Your task to perform on an android device: find which apps use the phone's location Image 0: 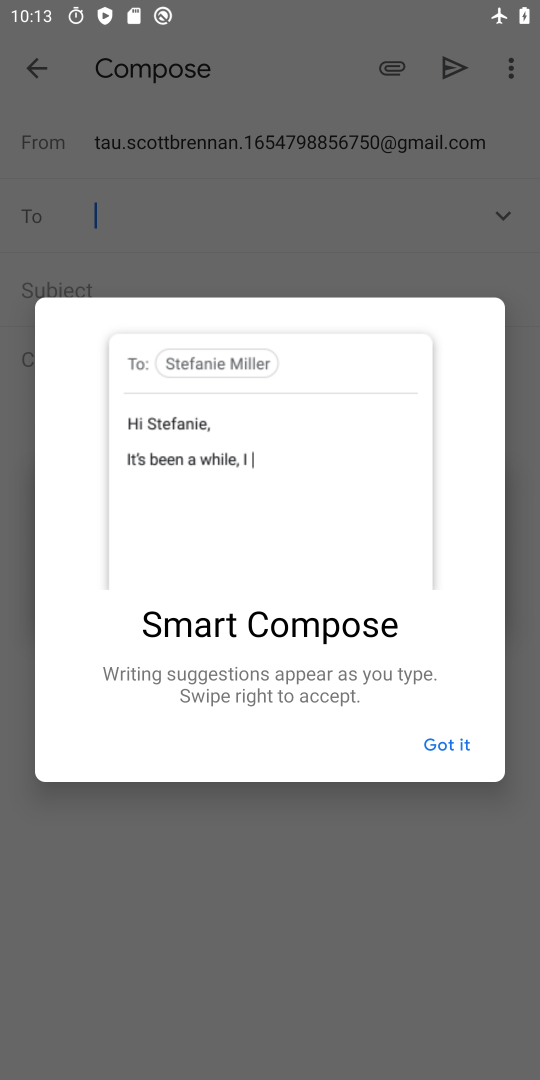
Step 0: press home button
Your task to perform on an android device: find which apps use the phone's location Image 1: 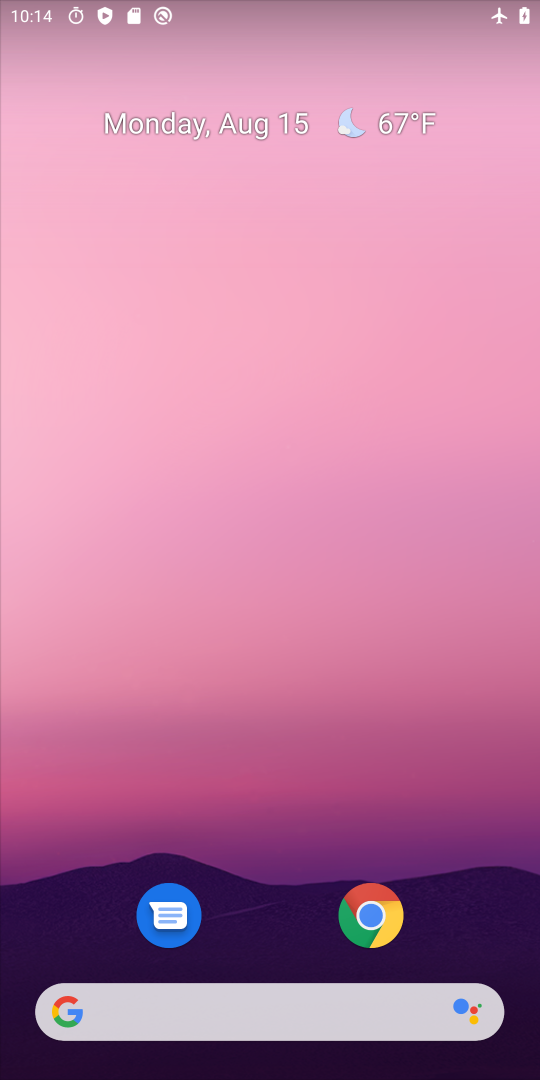
Step 1: drag from (458, 793) to (402, 323)
Your task to perform on an android device: find which apps use the phone's location Image 2: 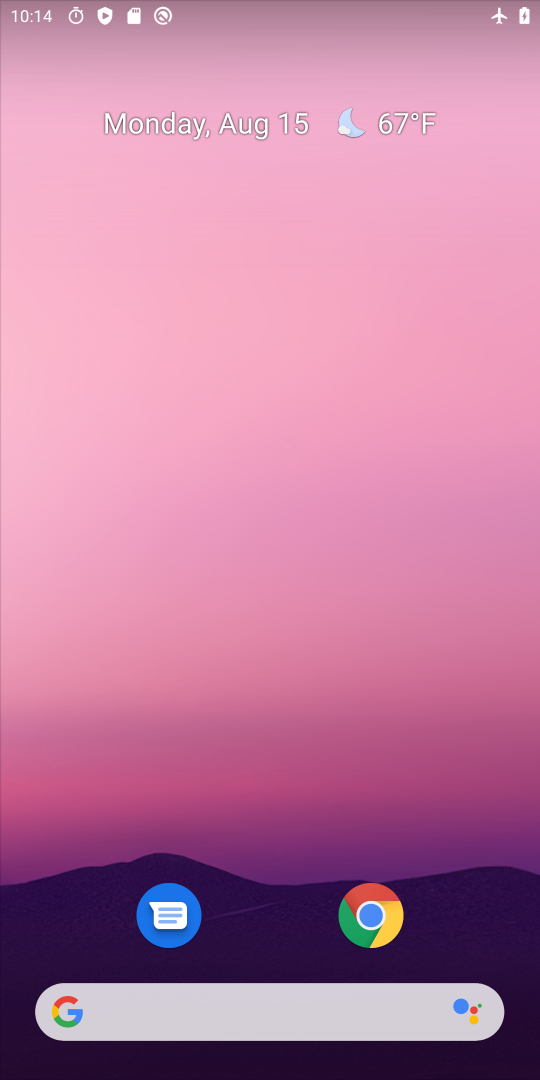
Step 2: drag from (442, 860) to (466, 56)
Your task to perform on an android device: find which apps use the phone's location Image 3: 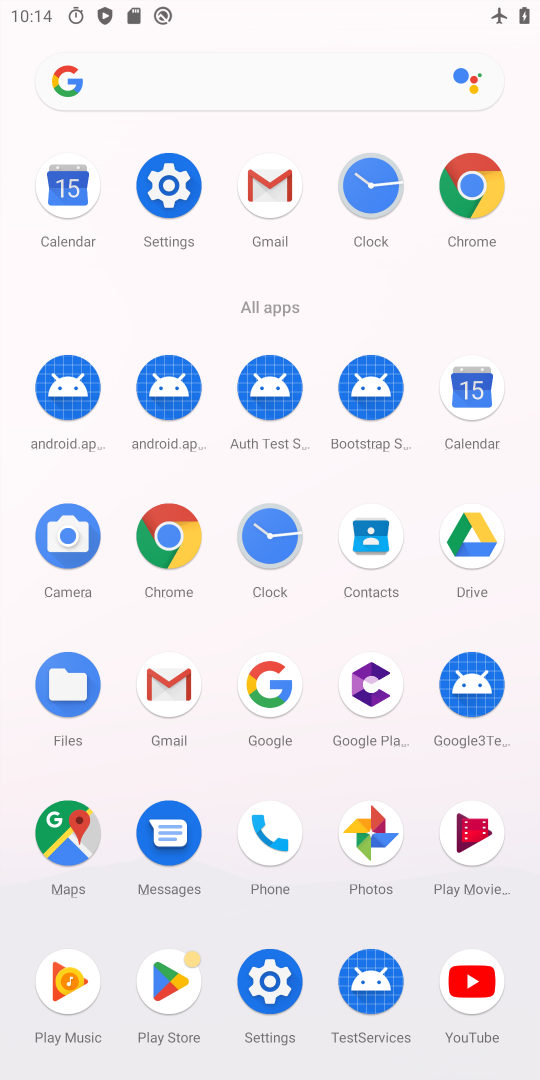
Step 3: click (257, 981)
Your task to perform on an android device: find which apps use the phone's location Image 4: 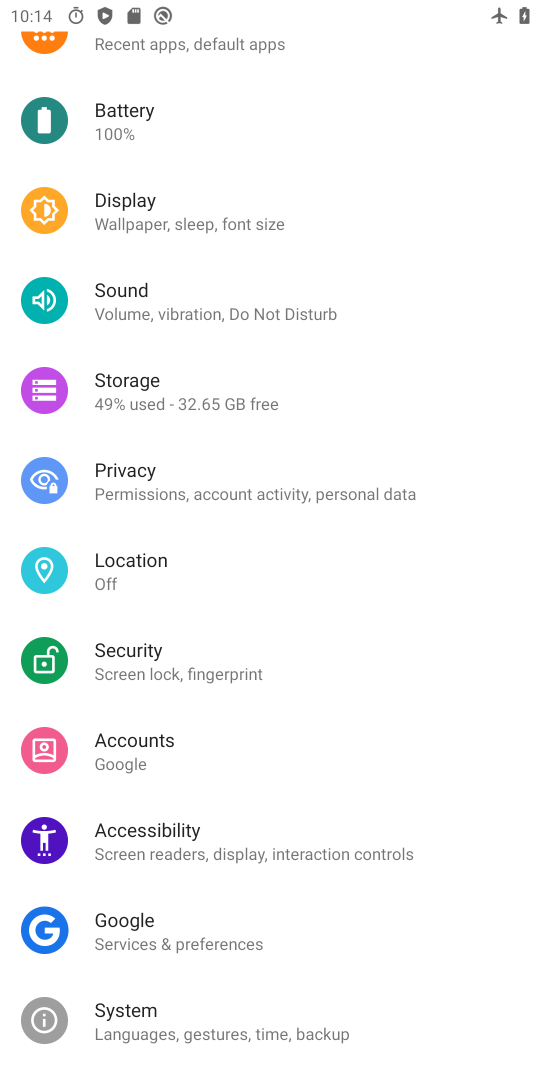
Step 4: click (130, 573)
Your task to perform on an android device: find which apps use the phone's location Image 5: 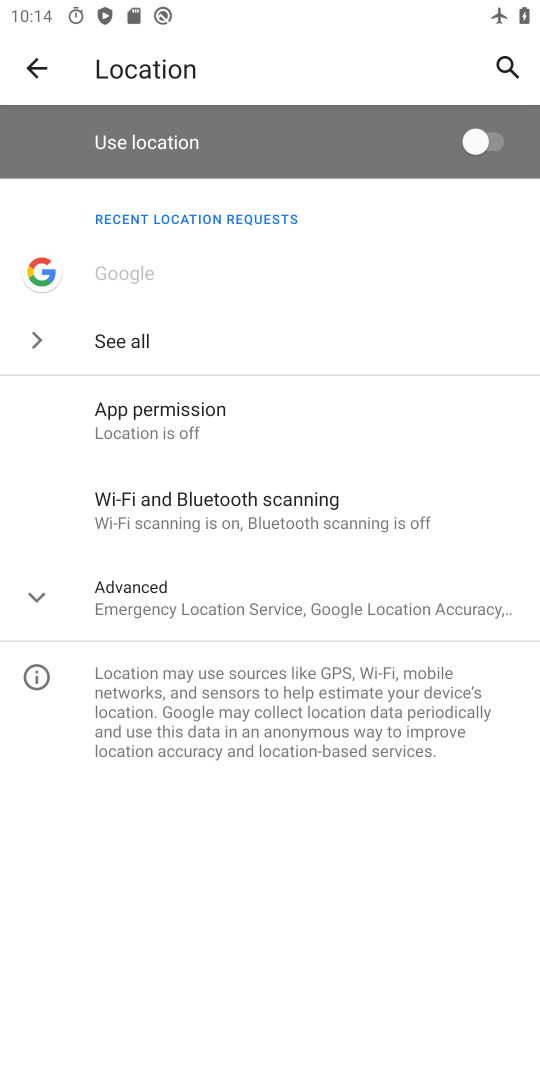
Step 5: click (280, 416)
Your task to perform on an android device: find which apps use the phone's location Image 6: 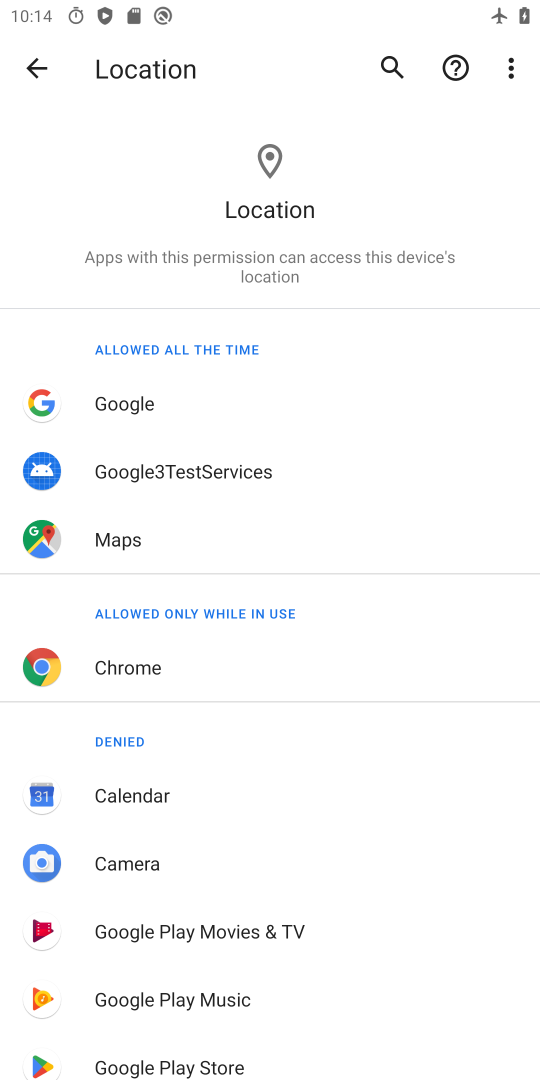
Step 6: task complete